Your task to perform on an android device: delete the emails in spam in the gmail app Image 0: 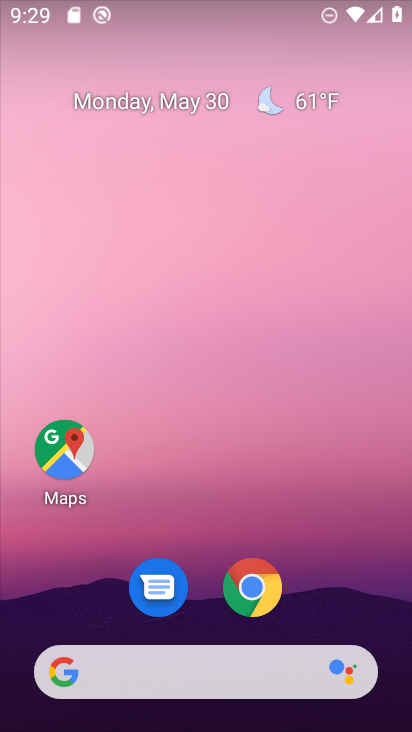
Step 0: drag from (204, 648) to (78, 25)
Your task to perform on an android device: delete the emails in spam in the gmail app Image 1: 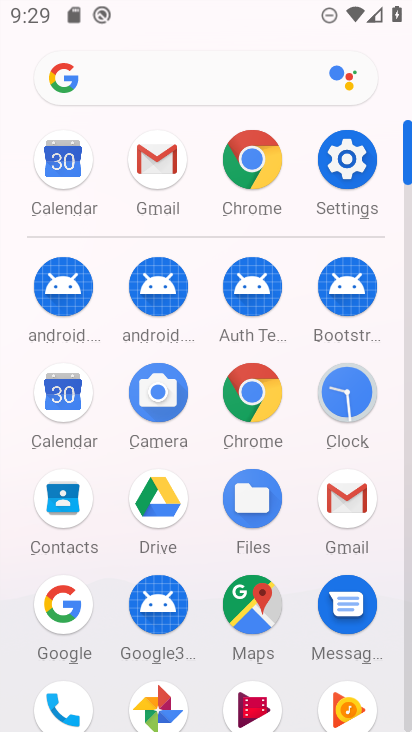
Step 1: click (333, 502)
Your task to perform on an android device: delete the emails in spam in the gmail app Image 2: 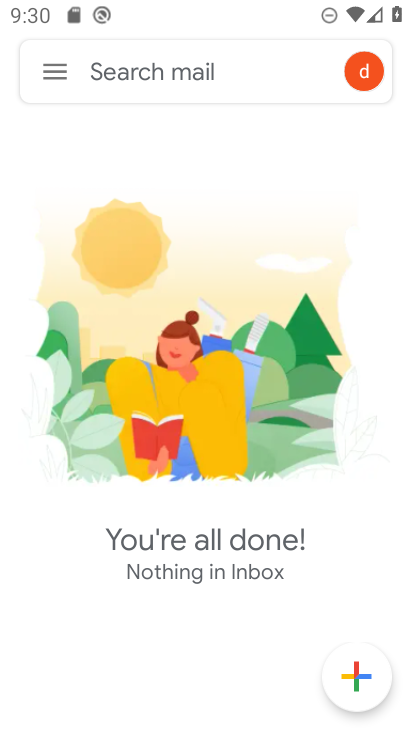
Step 2: click (51, 75)
Your task to perform on an android device: delete the emails in spam in the gmail app Image 3: 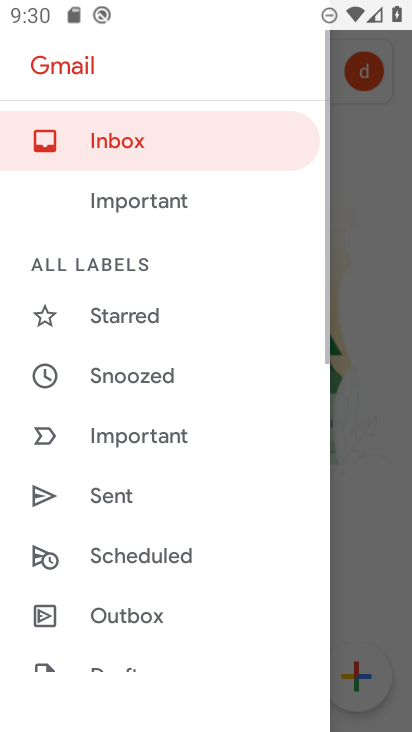
Step 3: drag from (127, 503) to (126, 127)
Your task to perform on an android device: delete the emails in spam in the gmail app Image 4: 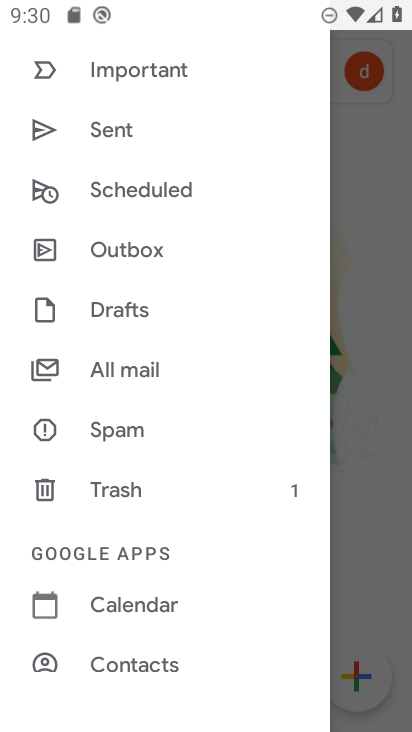
Step 4: click (115, 422)
Your task to perform on an android device: delete the emails in spam in the gmail app Image 5: 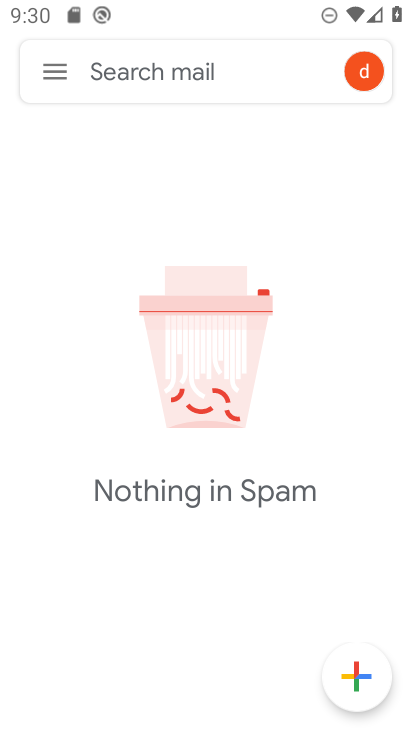
Step 5: task complete